Your task to perform on an android device: check storage Image 0: 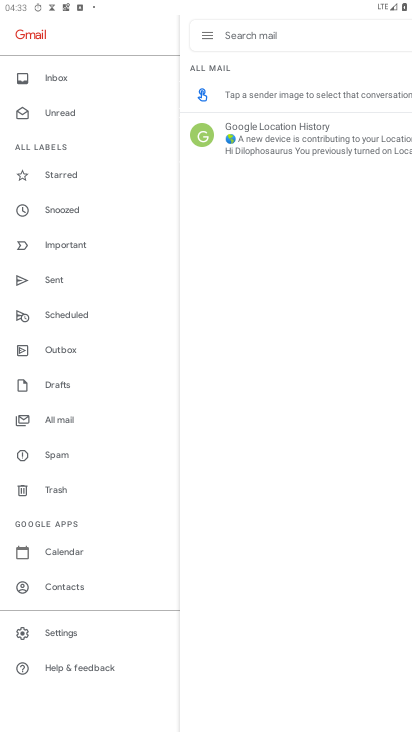
Step 0: press home button
Your task to perform on an android device: check storage Image 1: 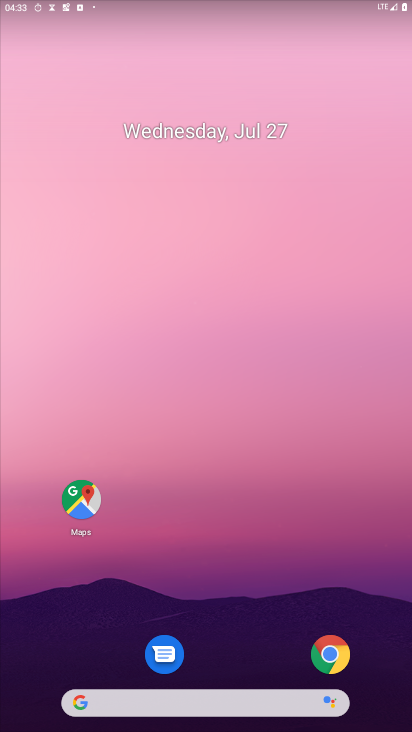
Step 1: drag from (244, 695) to (327, 152)
Your task to perform on an android device: check storage Image 2: 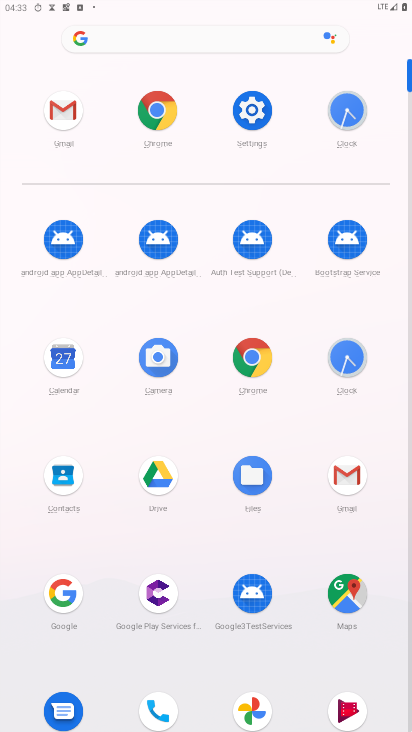
Step 2: click (245, 112)
Your task to perform on an android device: check storage Image 3: 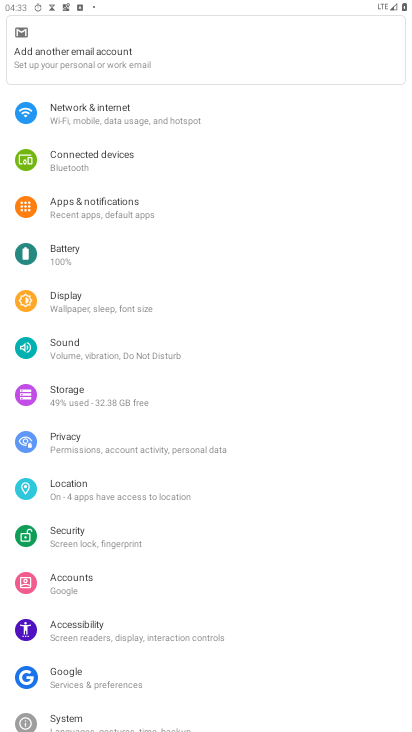
Step 3: click (88, 397)
Your task to perform on an android device: check storage Image 4: 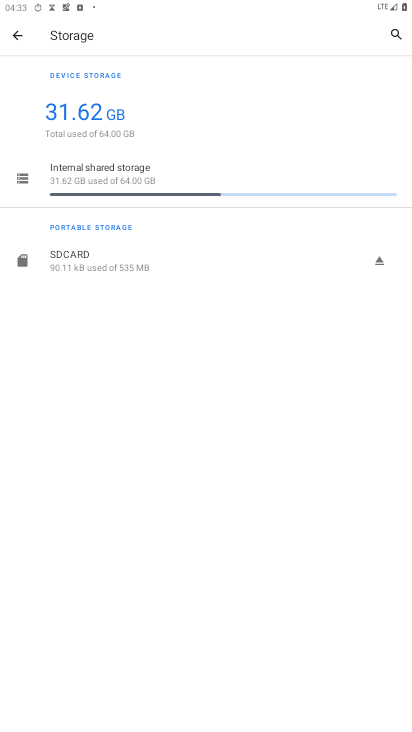
Step 4: task complete